Your task to perform on an android device: turn off airplane mode Image 0: 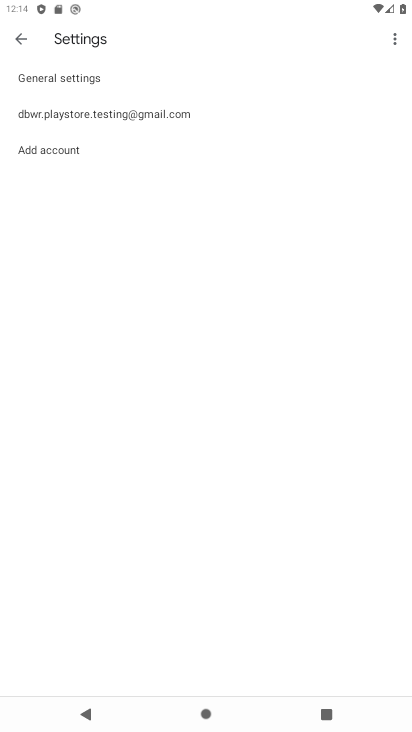
Step 0: press back button
Your task to perform on an android device: turn off airplane mode Image 1: 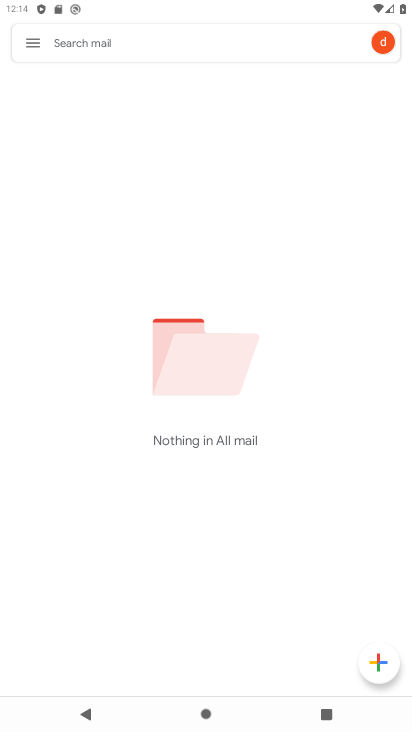
Step 1: press back button
Your task to perform on an android device: turn off airplane mode Image 2: 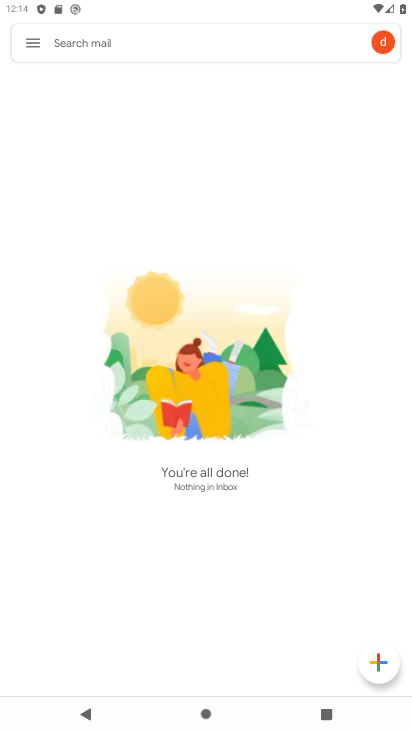
Step 2: press home button
Your task to perform on an android device: turn off airplane mode Image 3: 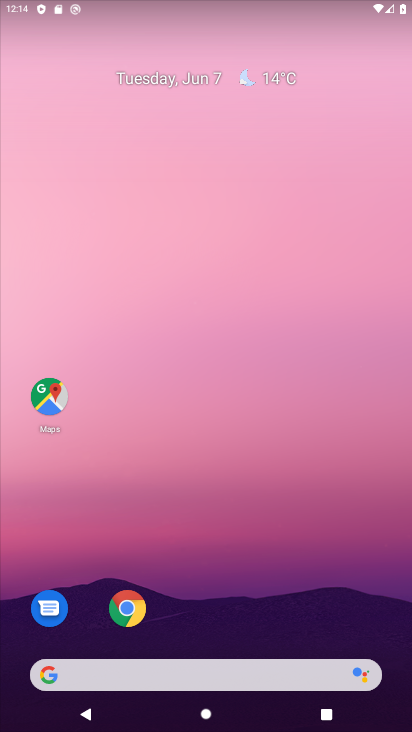
Step 3: drag from (243, 563) to (183, 1)
Your task to perform on an android device: turn off airplane mode Image 4: 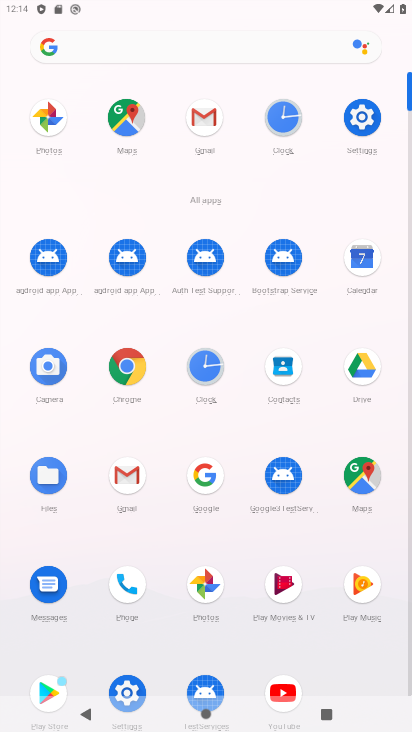
Step 4: click (360, 114)
Your task to perform on an android device: turn off airplane mode Image 5: 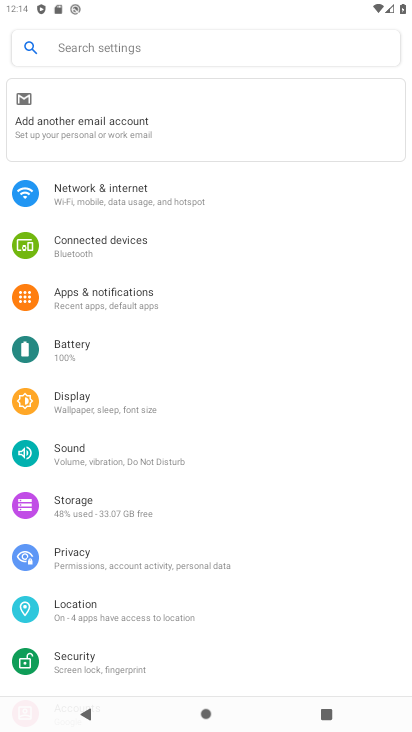
Step 5: click (106, 194)
Your task to perform on an android device: turn off airplane mode Image 6: 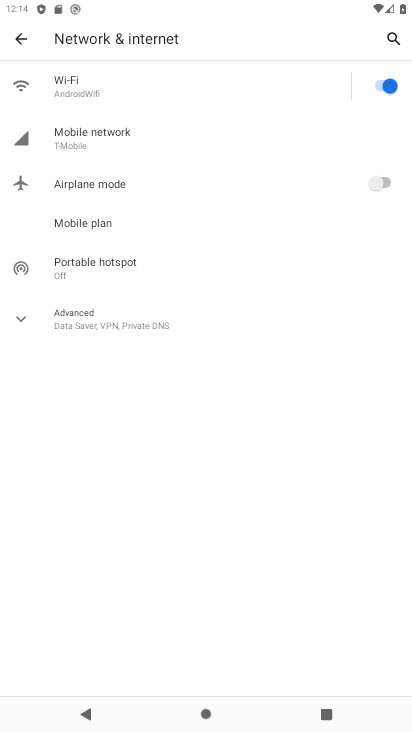
Step 6: click (17, 321)
Your task to perform on an android device: turn off airplane mode Image 7: 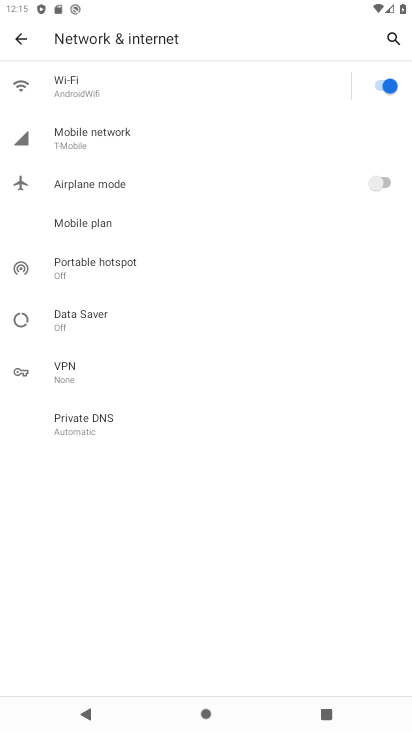
Step 7: task complete